Your task to perform on an android device: find which apps use the phone's location Image 0: 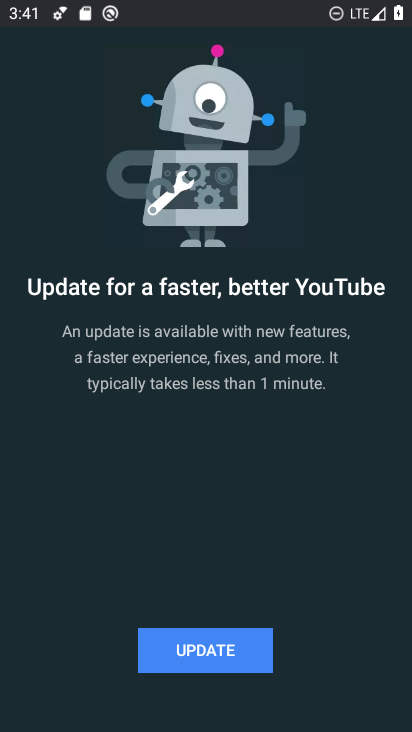
Step 0: press home button
Your task to perform on an android device: find which apps use the phone's location Image 1: 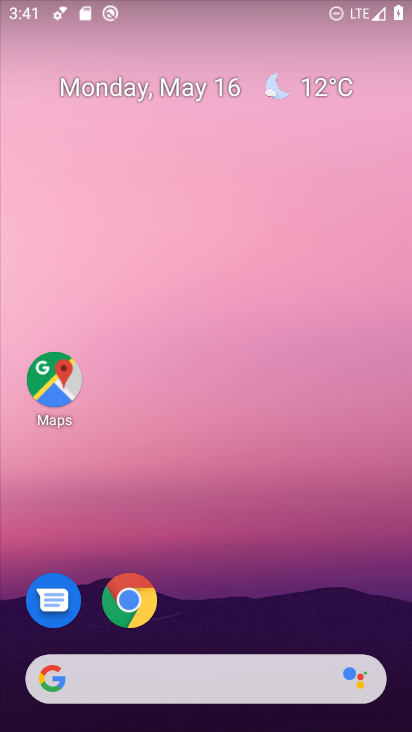
Step 1: drag from (264, 623) to (264, 157)
Your task to perform on an android device: find which apps use the phone's location Image 2: 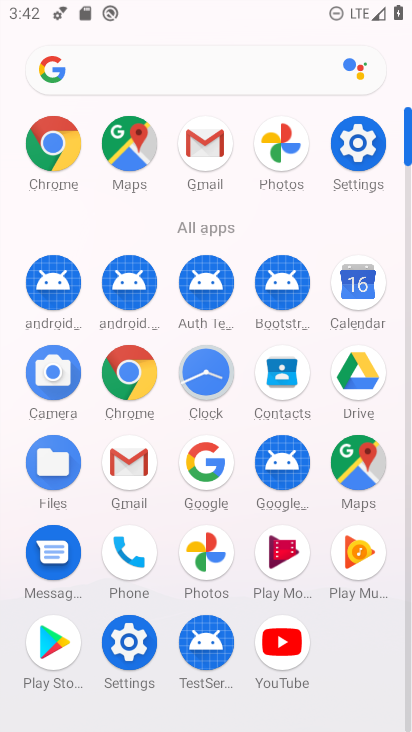
Step 2: click (367, 155)
Your task to perform on an android device: find which apps use the phone's location Image 3: 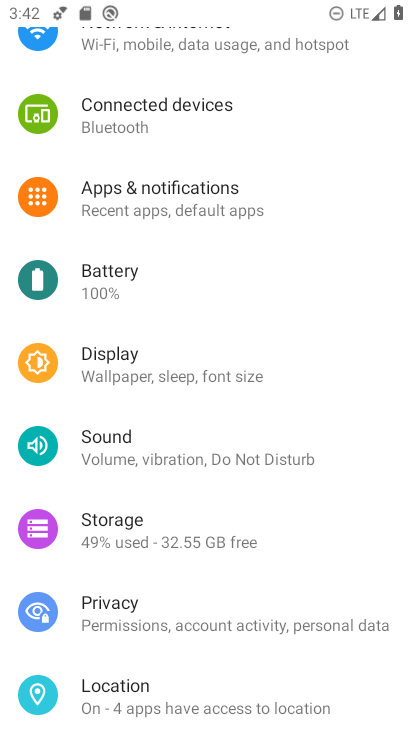
Step 3: click (103, 683)
Your task to perform on an android device: find which apps use the phone's location Image 4: 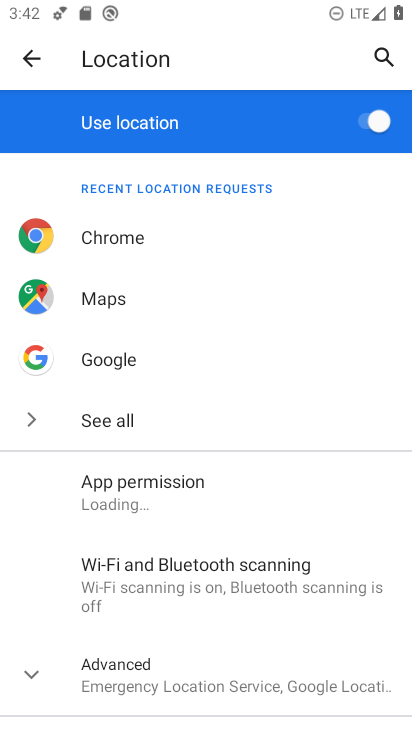
Step 4: click (207, 479)
Your task to perform on an android device: find which apps use the phone's location Image 5: 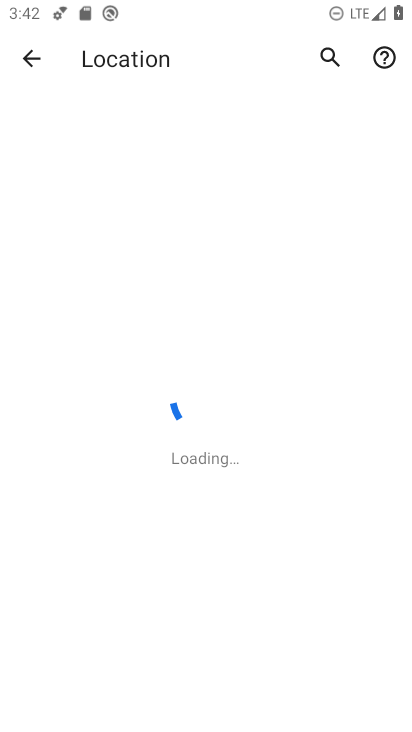
Step 5: task complete